Your task to perform on an android device: Open settings Image 0: 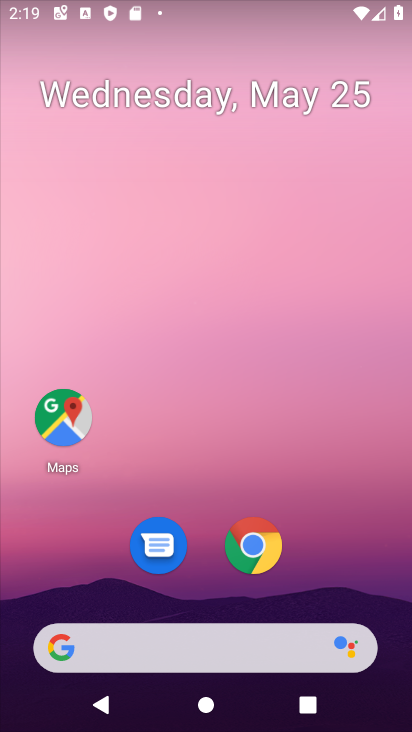
Step 0: drag from (351, 580) to (267, 69)
Your task to perform on an android device: Open settings Image 1: 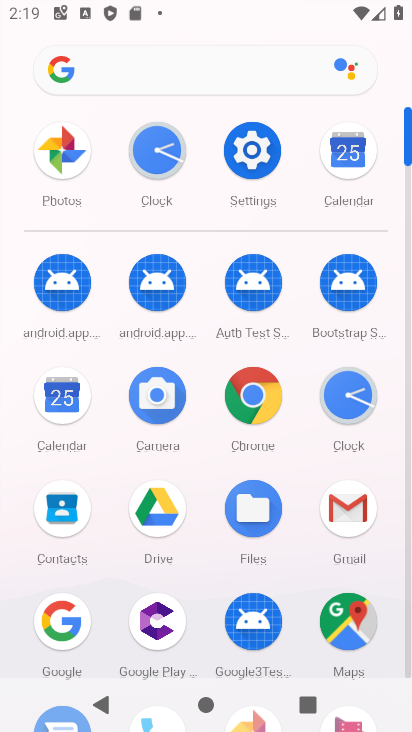
Step 1: click (246, 171)
Your task to perform on an android device: Open settings Image 2: 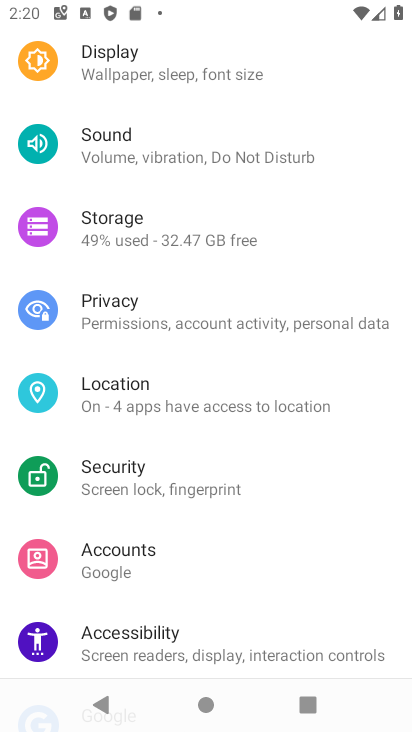
Step 2: task complete